Your task to perform on an android device: Is it going to rain tomorrow? Image 0: 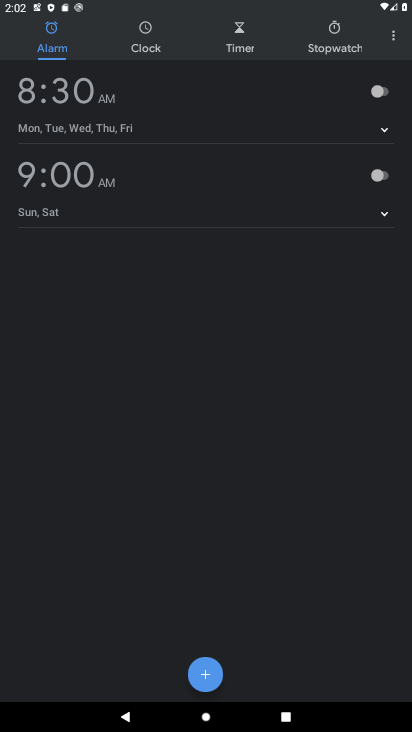
Step 0: press home button
Your task to perform on an android device: Is it going to rain tomorrow? Image 1: 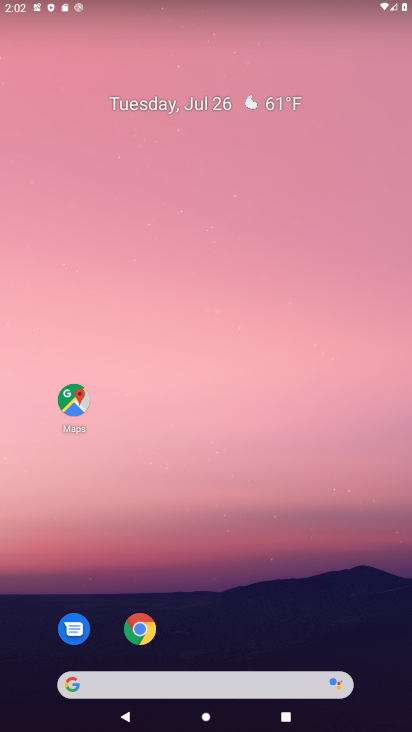
Step 1: click (166, 683)
Your task to perform on an android device: Is it going to rain tomorrow? Image 2: 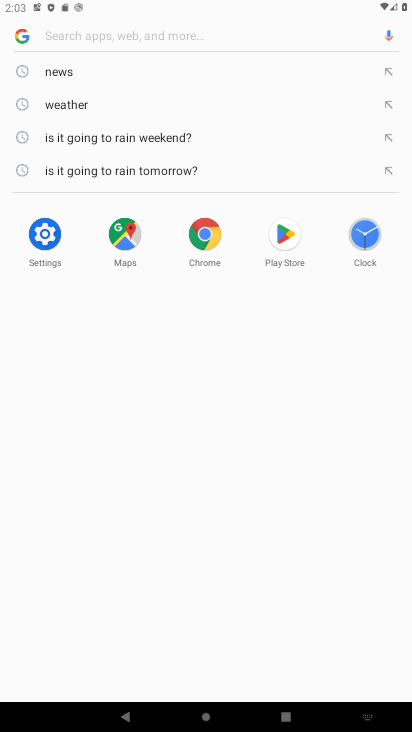
Step 2: click (112, 109)
Your task to perform on an android device: Is it going to rain tomorrow? Image 3: 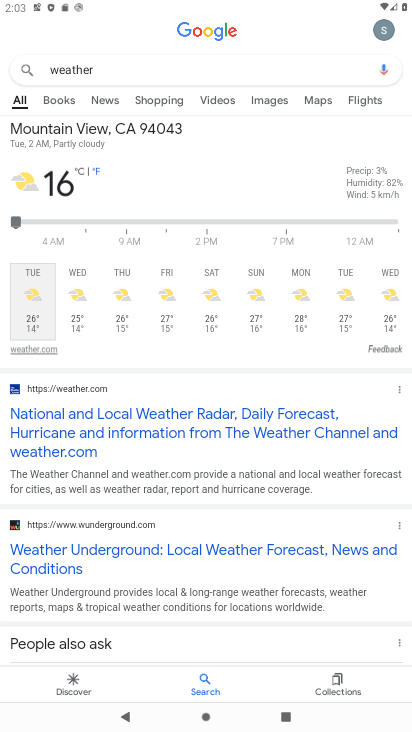
Step 3: click (79, 286)
Your task to perform on an android device: Is it going to rain tomorrow? Image 4: 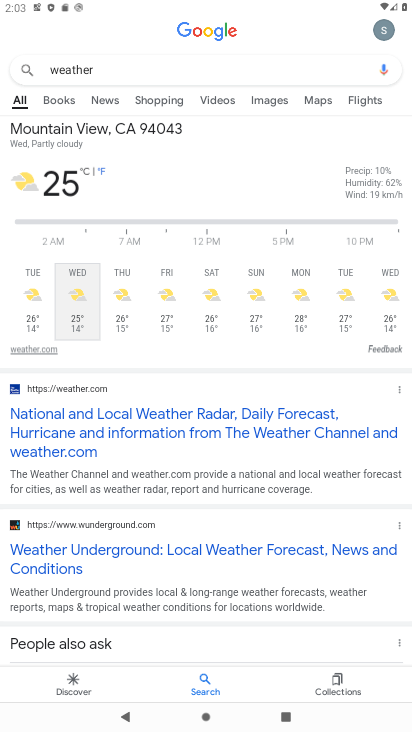
Step 4: task complete